Your task to perform on an android device: Open notification settings Image 0: 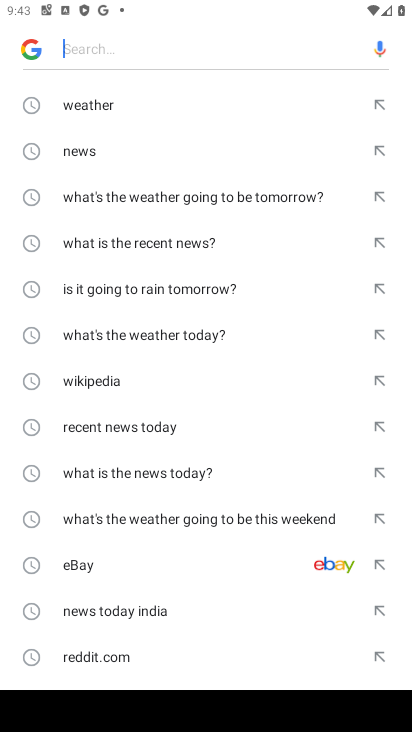
Step 0: press home button
Your task to perform on an android device: Open notification settings Image 1: 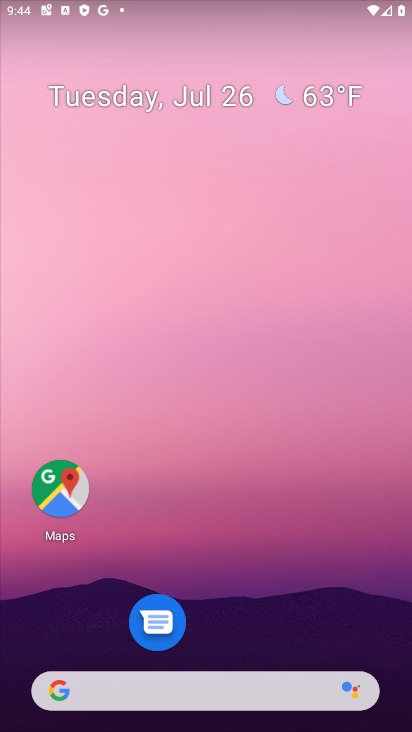
Step 1: drag from (303, 519) to (156, 5)
Your task to perform on an android device: Open notification settings Image 2: 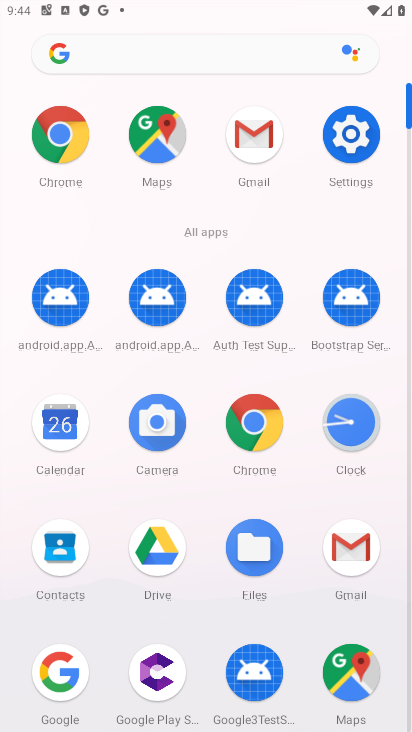
Step 2: click (331, 76)
Your task to perform on an android device: Open notification settings Image 3: 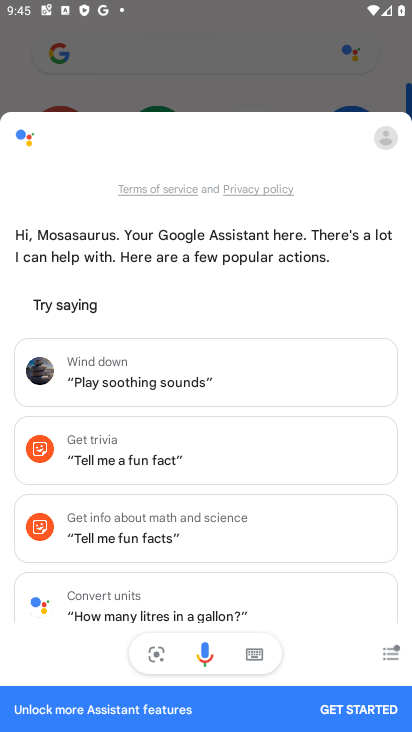
Step 3: click (297, 34)
Your task to perform on an android device: Open notification settings Image 4: 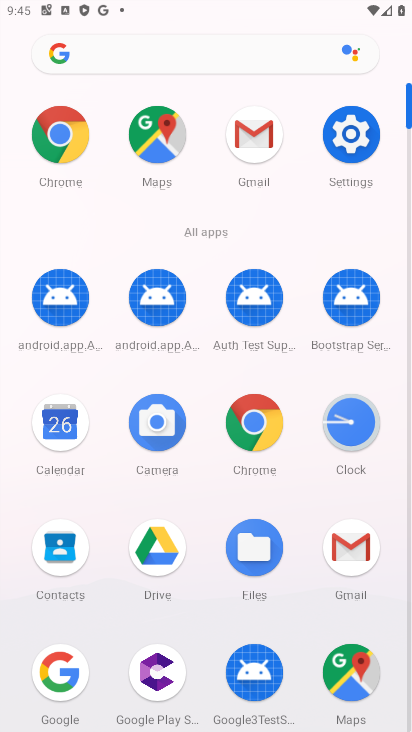
Step 4: click (342, 136)
Your task to perform on an android device: Open notification settings Image 5: 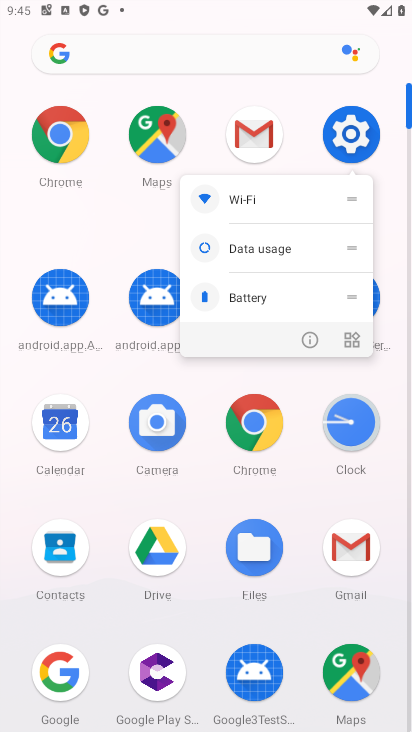
Step 5: click (357, 134)
Your task to perform on an android device: Open notification settings Image 6: 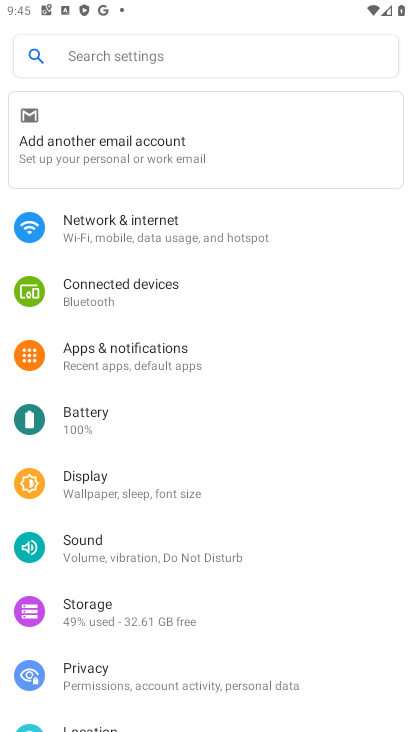
Step 6: click (148, 347)
Your task to perform on an android device: Open notification settings Image 7: 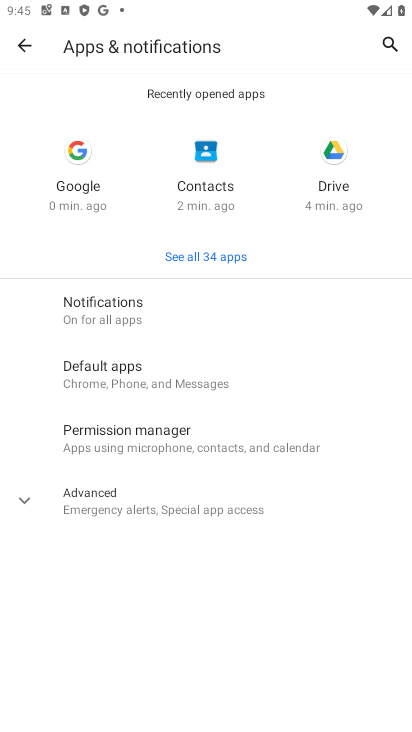
Step 7: task complete